Your task to perform on an android device: see tabs open on other devices in the chrome app Image 0: 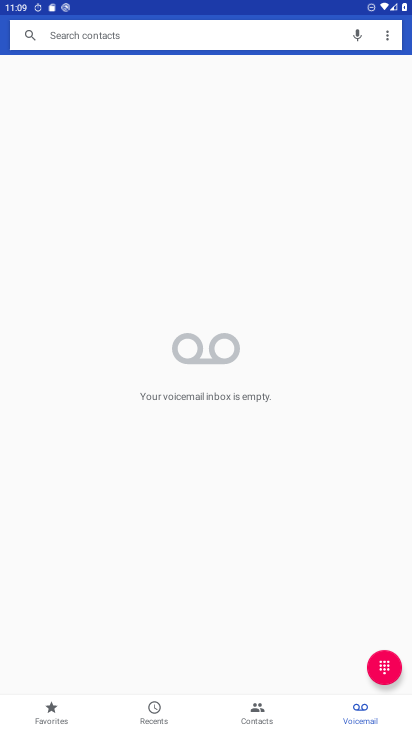
Step 0: press home button
Your task to perform on an android device: see tabs open on other devices in the chrome app Image 1: 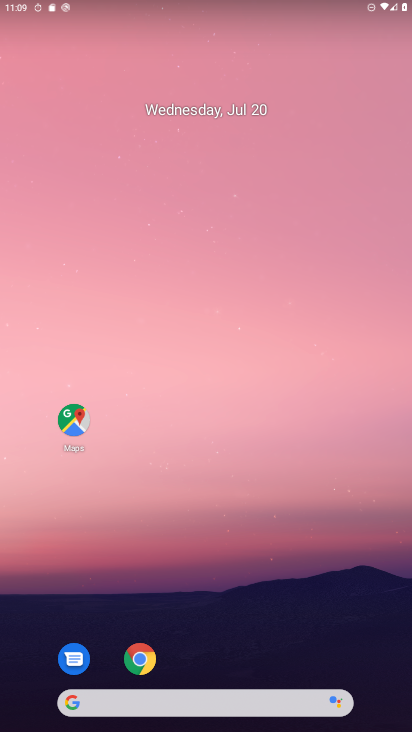
Step 1: click (194, 117)
Your task to perform on an android device: see tabs open on other devices in the chrome app Image 2: 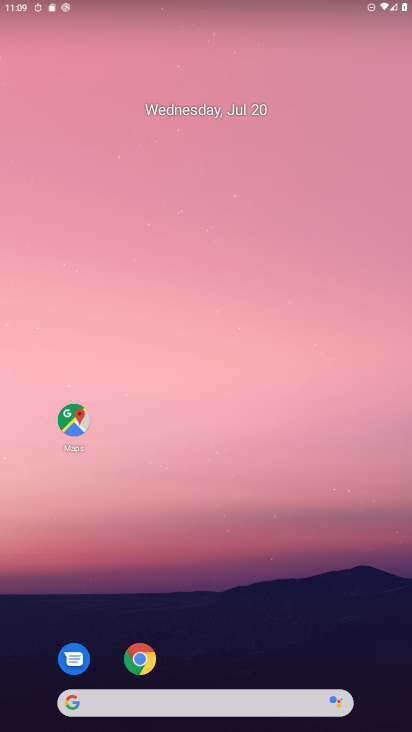
Step 2: drag from (324, 667) to (235, 146)
Your task to perform on an android device: see tabs open on other devices in the chrome app Image 3: 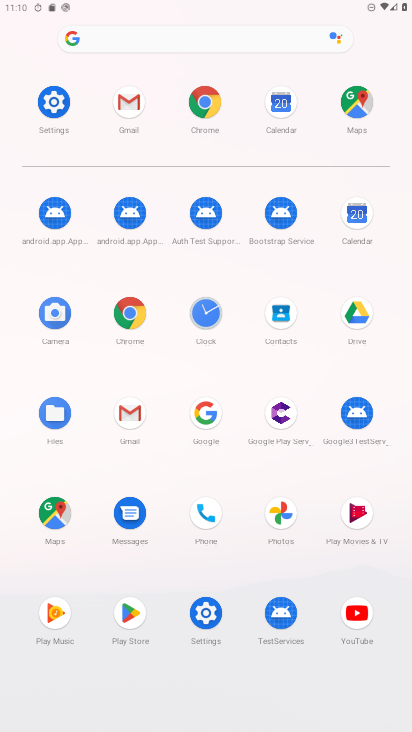
Step 3: click (205, 105)
Your task to perform on an android device: see tabs open on other devices in the chrome app Image 4: 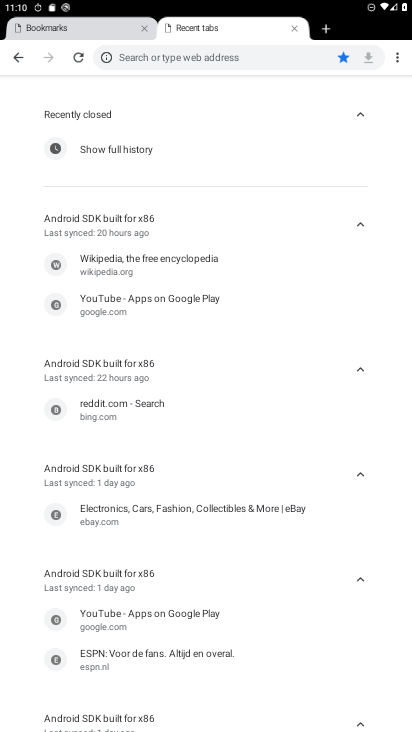
Step 4: task complete